Your task to perform on an android device: What's the weather today? Image 0: 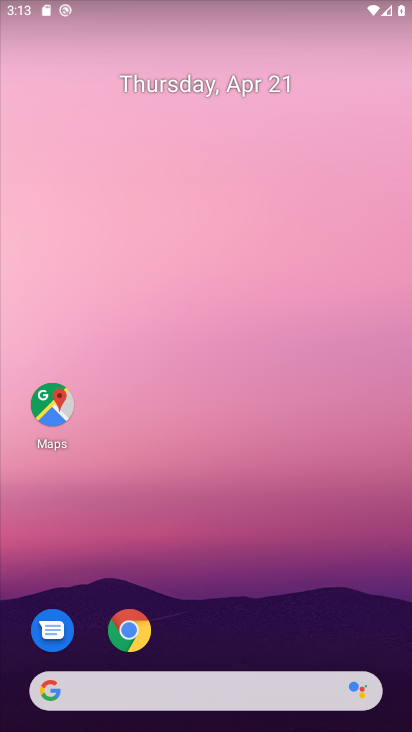
Step 0: drag from (192, 617) to (309, 346)
Your task to perform on an android device: What's the weather today? Image 1: 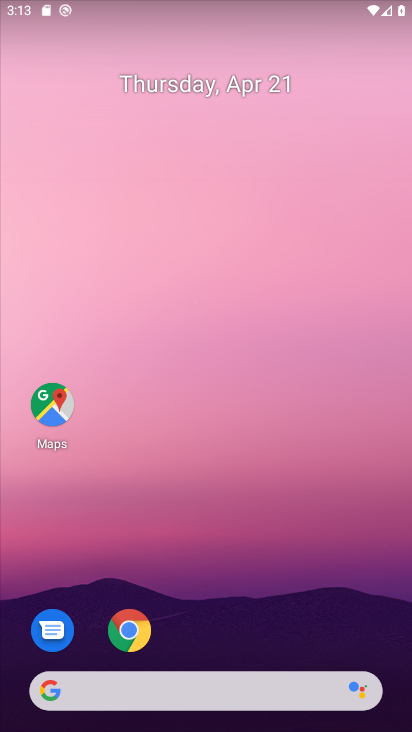
Step 1: drag from (254, 611) to (101, 176)
Your task to perform on an android device: What's the weather today? Image 2: 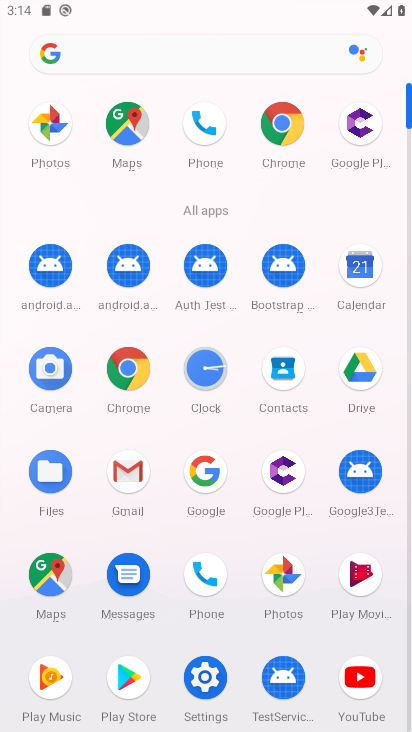
Step 2: click (153, 366)
Your task to perform on an android device: What's the weather today? Image 3: 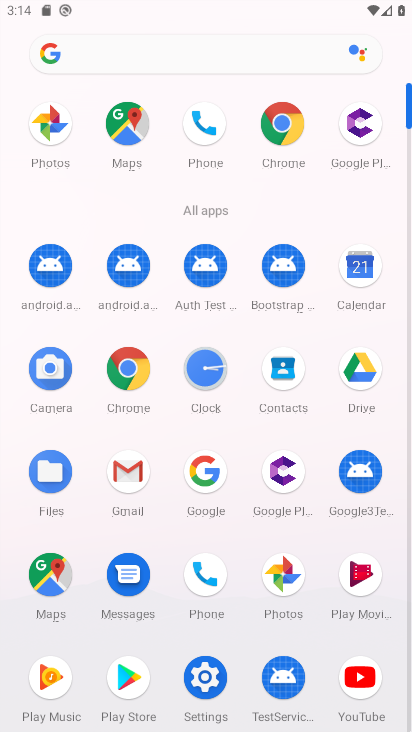
Step 3: click (139, 365)
Your task to perform on an android device: What's the weather today? Image 4: 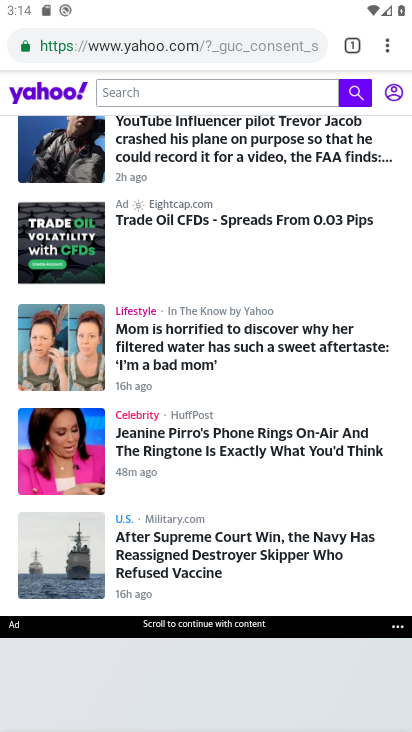
Step 4: drag from (208, 270) to (338, 649)
Your task to perform on an android device: What's the weather today? Image 5: 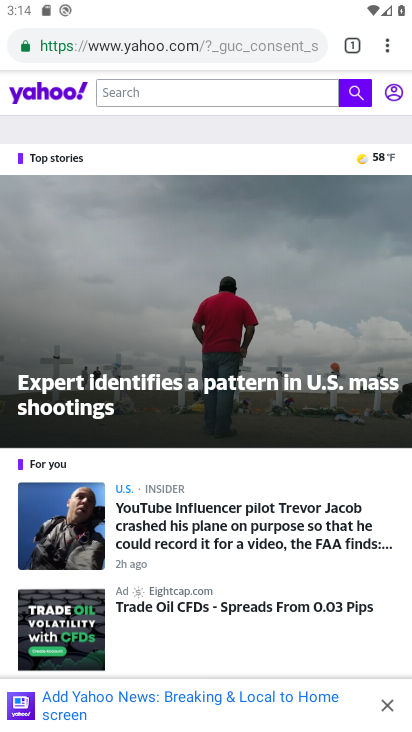
Step 5: click (147, 47)
Your task to perform on an android device: What's the weather today? Image 6: 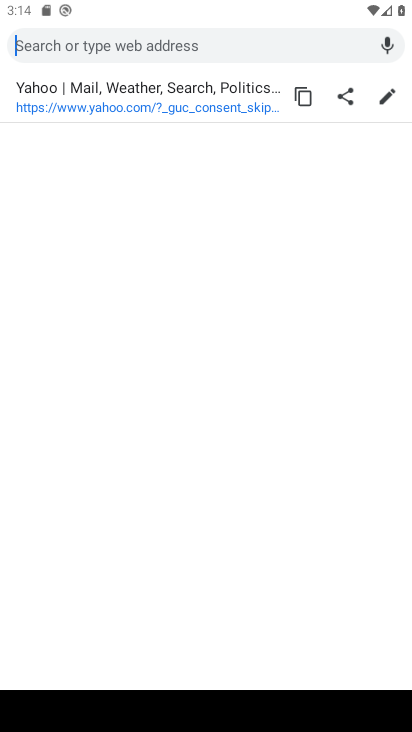
Step 6: type "weather today"
Your task to perform on an android device: What's the weather today? Image 7: 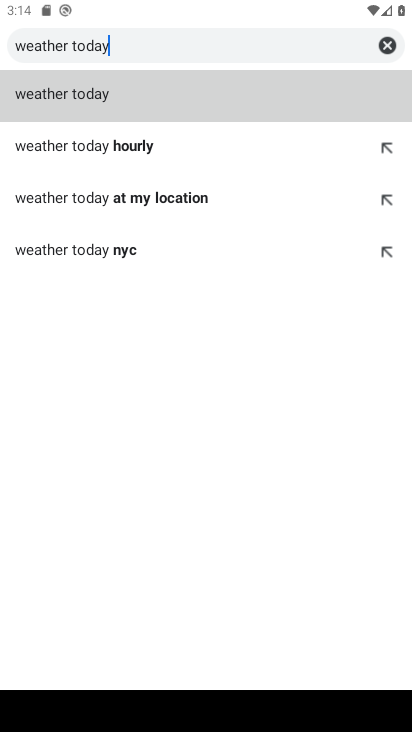
Step 7: click (98, 103)
Your task to perform on an android device: What's the weather today? Image 8: 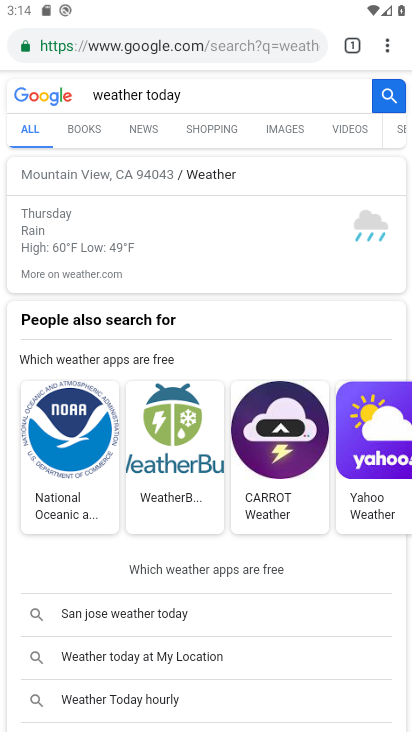
Step 8: task complete